Your task to perform on an android device: Open internet settings Image 0: 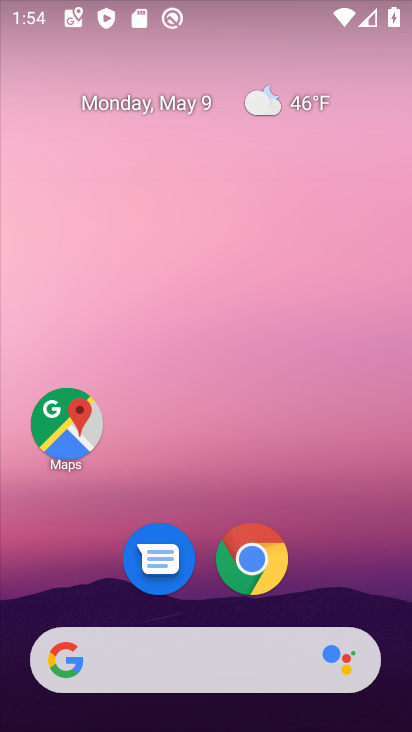
Step 0: drag from (313, 585) to (330, 265)
Your task to perform on an android device: Open internet settings Image 1: 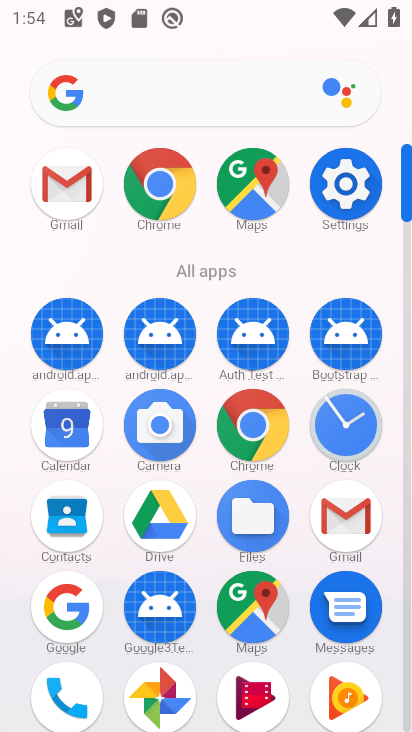
Step 1: click (341, 178)
Your task to perform on an android device: Open internet settings Image 2: 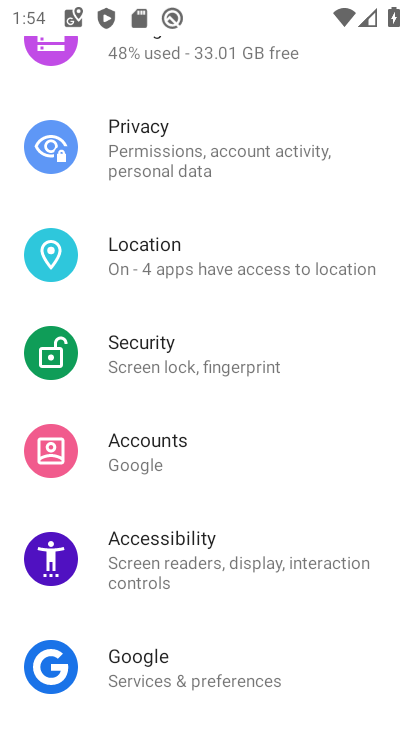
Step 2: drag from (326, 177) to (315, 491)
Your task to perform on an android device: Open internet settings Image 3: 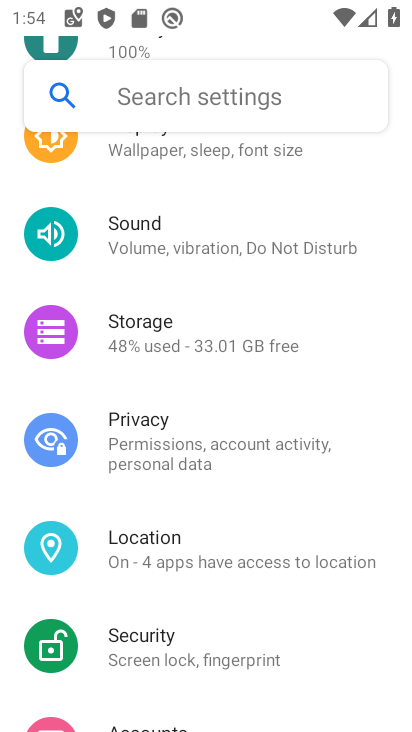
Step 3: drag from (286, 232) to (283, 623)
Your task to perform on an android device: Open internet settings Image 4: 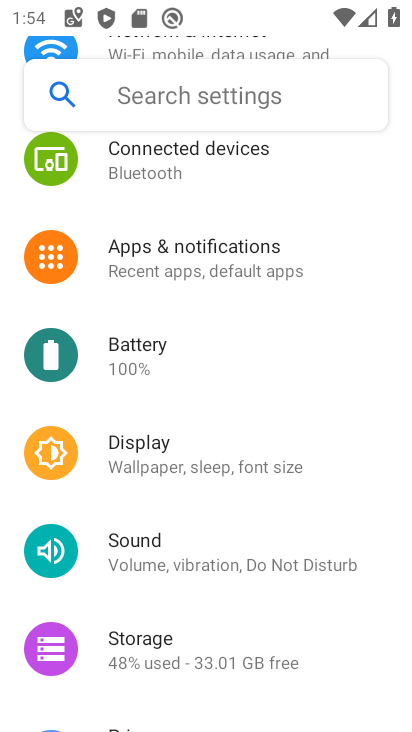
Step 4: drag from (235, 434) to (280, 602)
Your task to perform on an android device: Open internet settings Image 5: 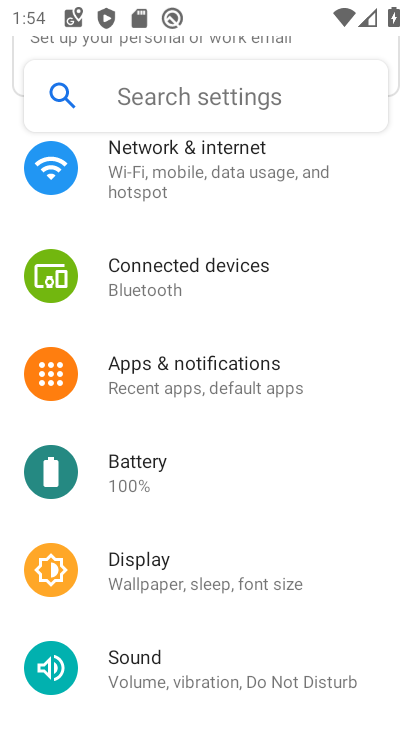
Step 5: drag from (219, 259) to (206, 545)
Your task to perform on an android device: Open internet settings Image 6: 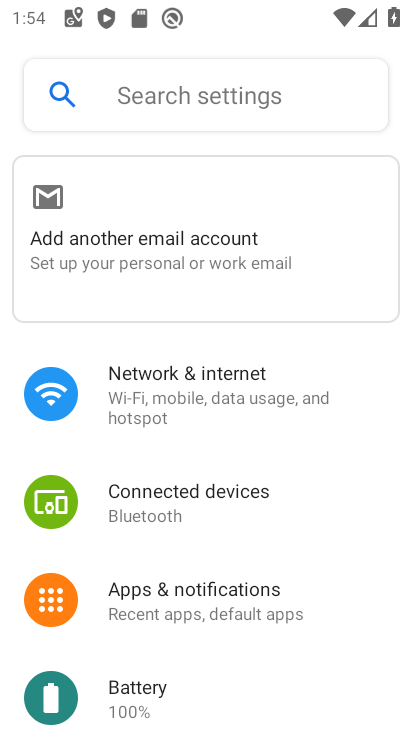
Step 6: click (208, 405)
Your task to perform on an android device: Open internet settings Image 7: 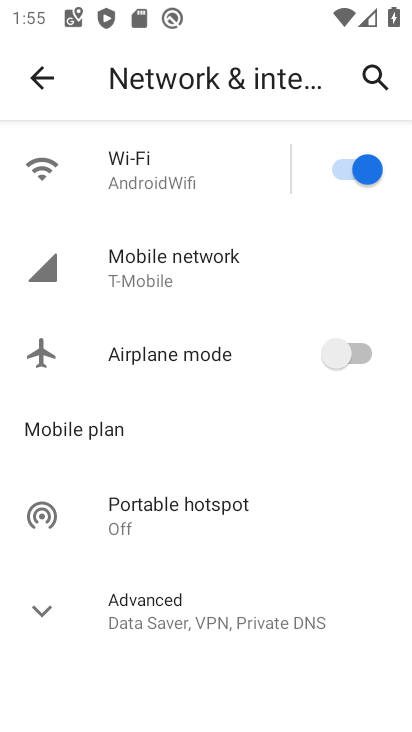
Step 7: task complete